Your task to perform on an android device: Go to Yahoo.com Image 0: 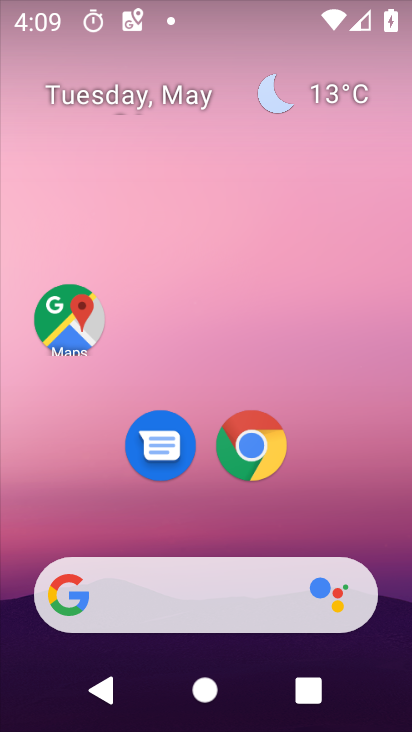
Step 0: press home button
Your task to perform on an android device: Go to Yahoo.com Image 1: 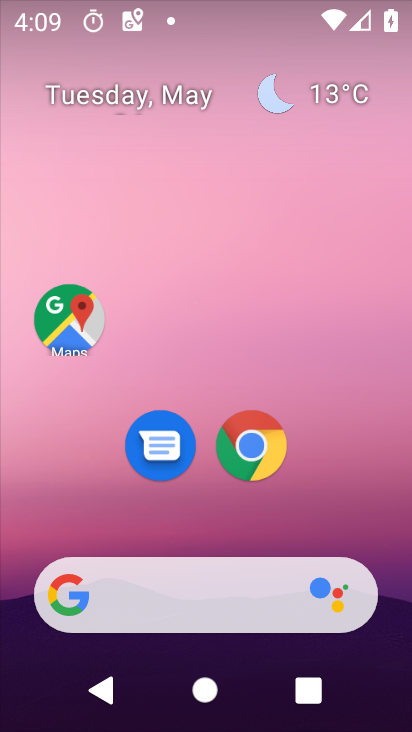
Step 1: click (247, 437)
Your task to perform on an android device: Go to Yahoo.com Image 2: 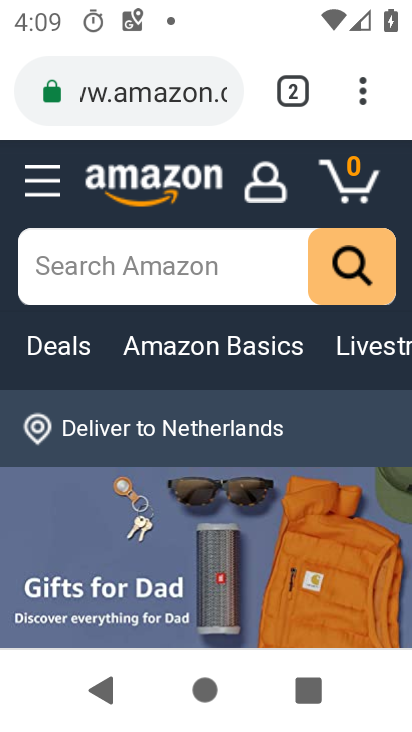
Step 2: click (293, 84)
Your task to perform on an android device: Go to Yahoo.com Image 3: 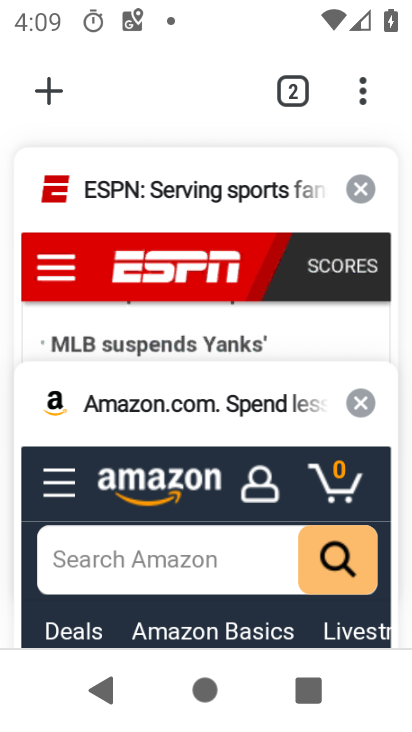
Step 3: click (359, 188)
Your task to perform on an android device: Go to Yahoo.com Image 4: 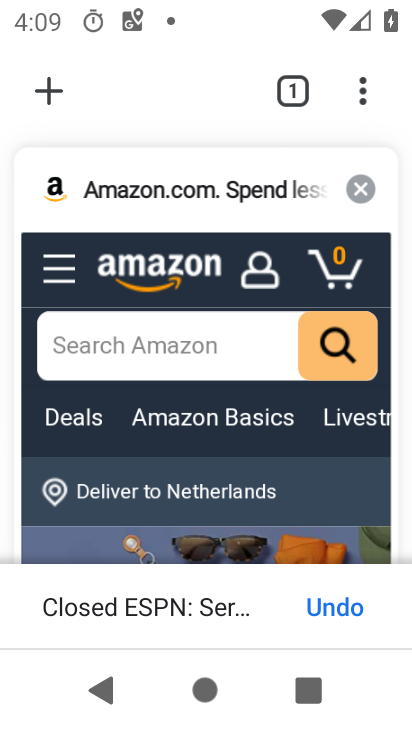
Step 4: click (359, 184)
Your task to perform on an android device: Go to Yahoo.com Image 5: 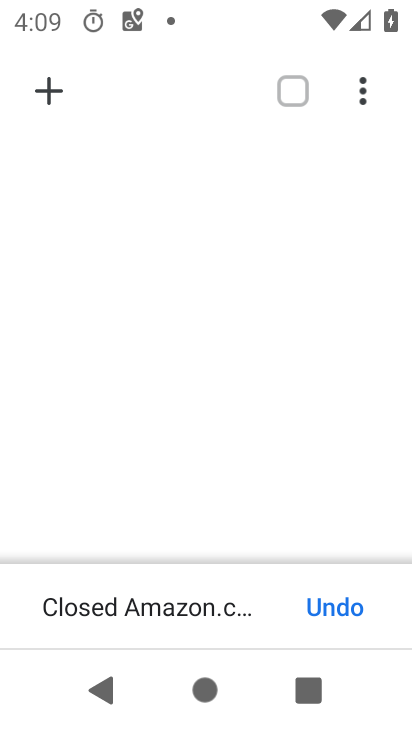
Step 5: click (55, 98)
Your task to perform on an android device: Go to Yahoo.com Image 6: 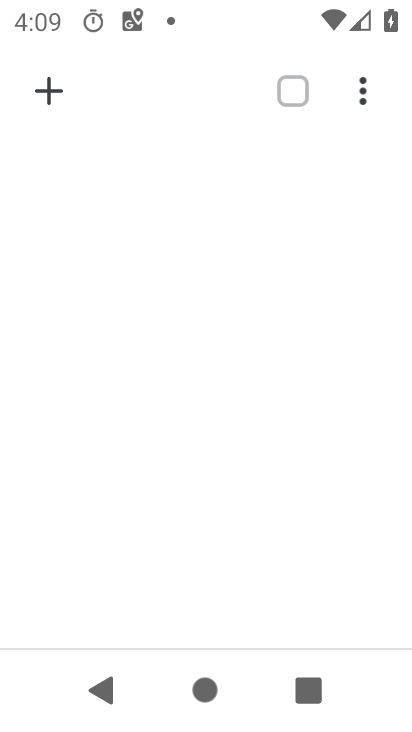
Step 6: click (55, 96)
Your task to perform on an android device: Go to Yahoo.com Image 7: 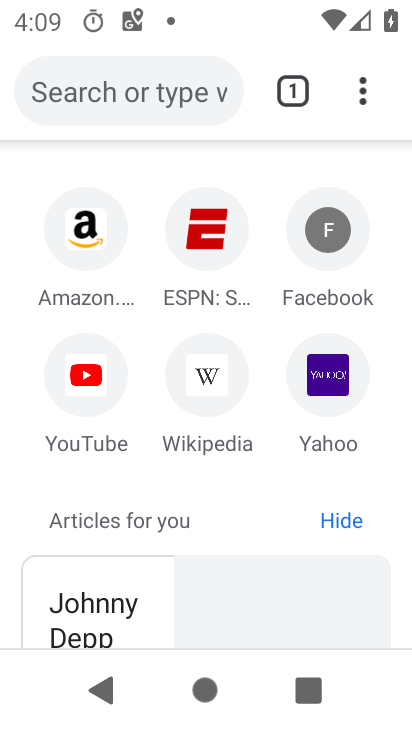
Step 7: click (327, 367)
Your task to perform on an android device: Go to Yahoo.com Image 8: 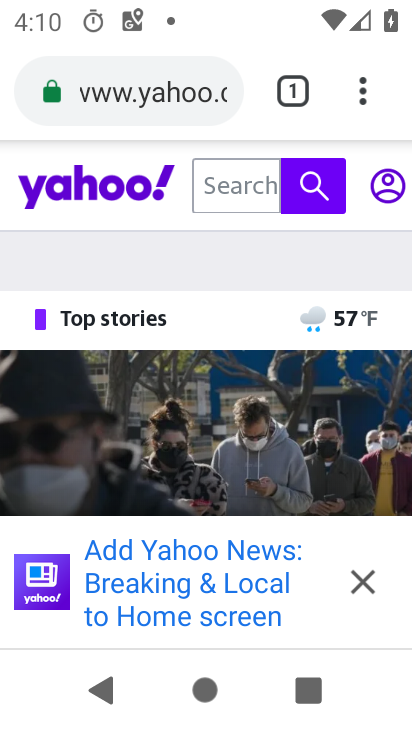
Step 8: click (364, 582)
Your task to perform on an android device: Go to Yahoo.com Image 9: 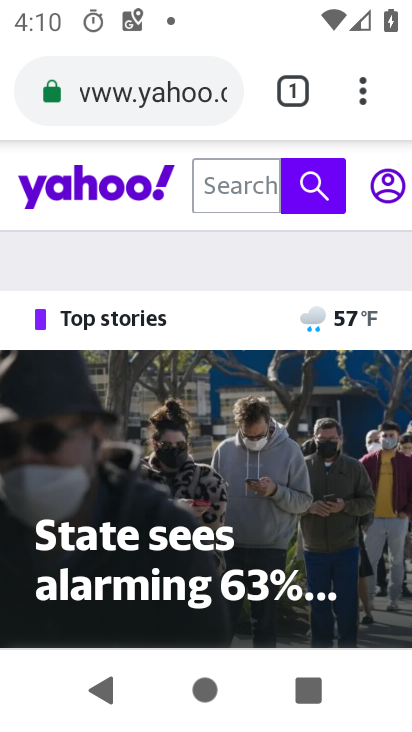
Step 9: task complete